Your task to perform on an android device: turn notification dots on Image 0: 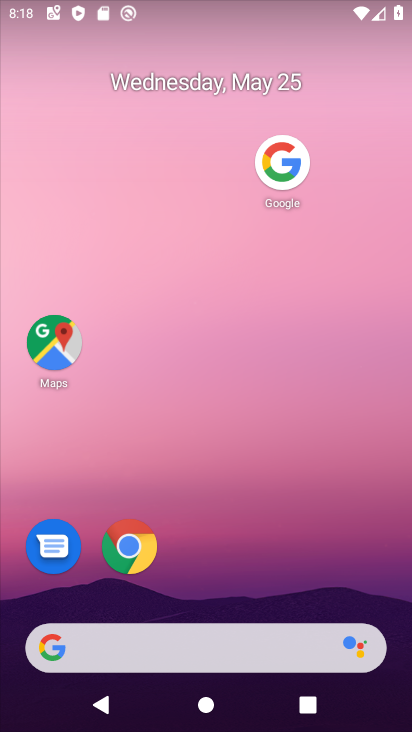
Step 0: drag from (214, 625) to (325, 190)
Your task to perform on an android device: turn notification dots on Image 1: 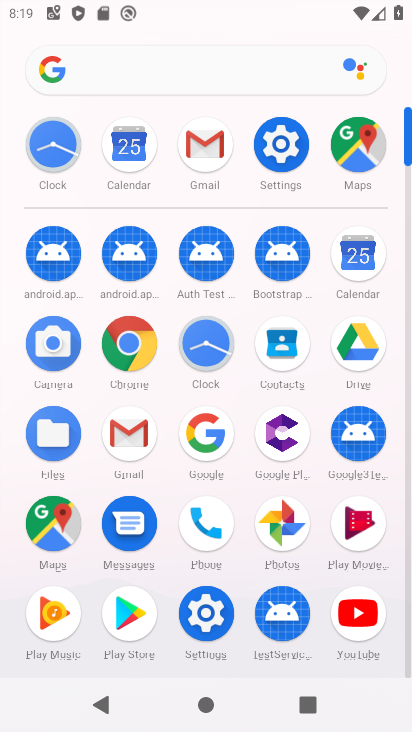
Step 1: click (288, 144)
Your task to perform on an android device: turn notification dots on Image 2: 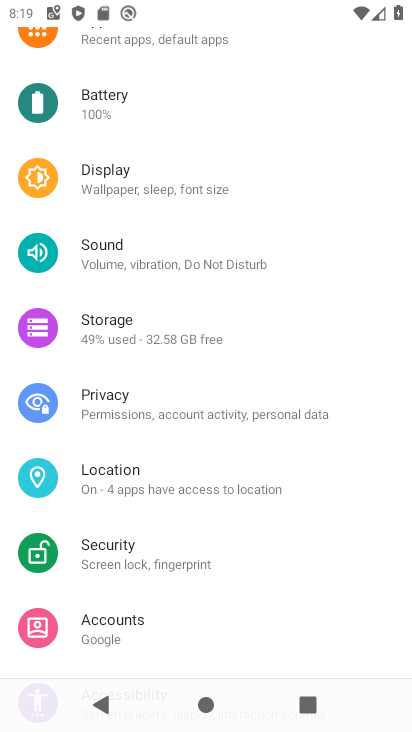
Step 2: drag from (294, 139) to (231, 479)
Your task to perform on an android device: turn notification dots on Image 3: 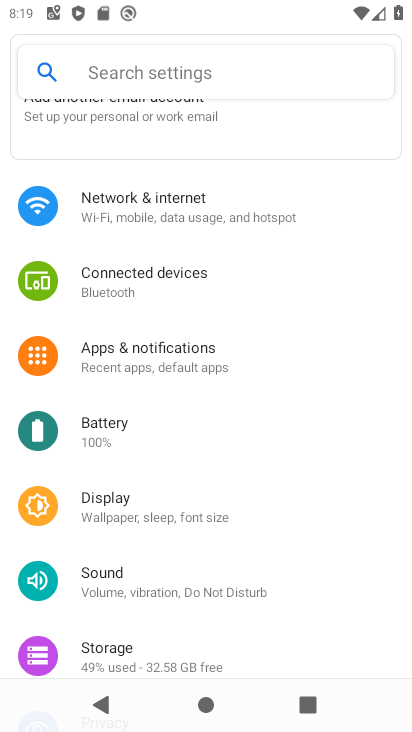
Step 3: click (187, 348)
Your task to perform on an android device: turn notification dots on Image 4: 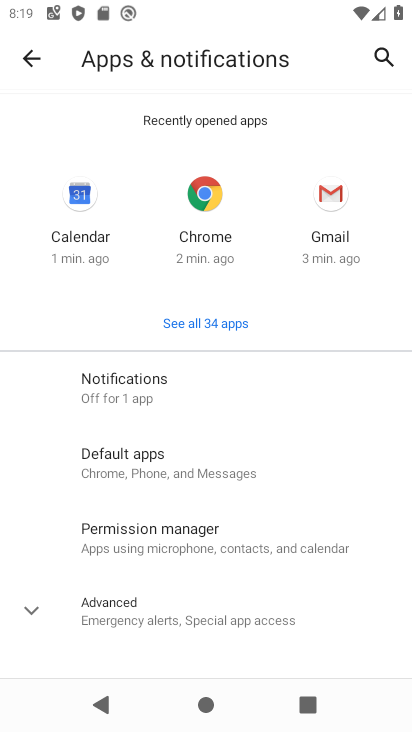
Step 4: click (149, 396)
Your task to perform on an android device: turn notification dots on Image 5: 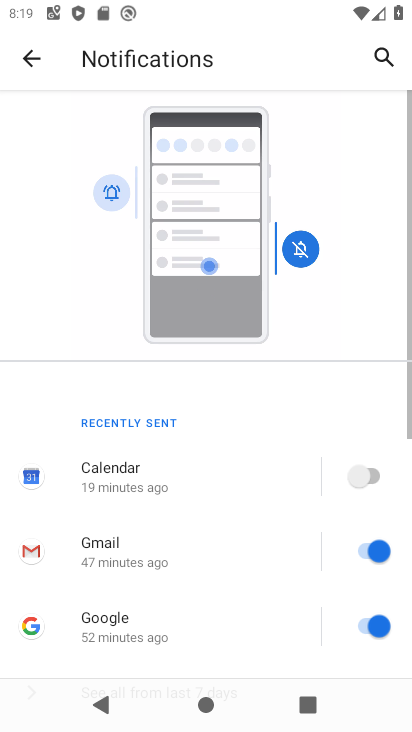
Step 5: drag from (287, 474) to (391, 92)
Your task to perform on an android device: turn notification dots on Image 6: 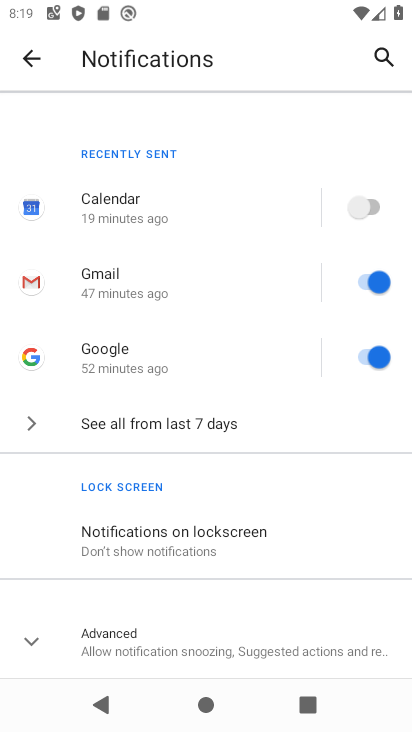
Step 6: click (195, 645)
Your task to perform on an android device: turn notification dots on Image 7: 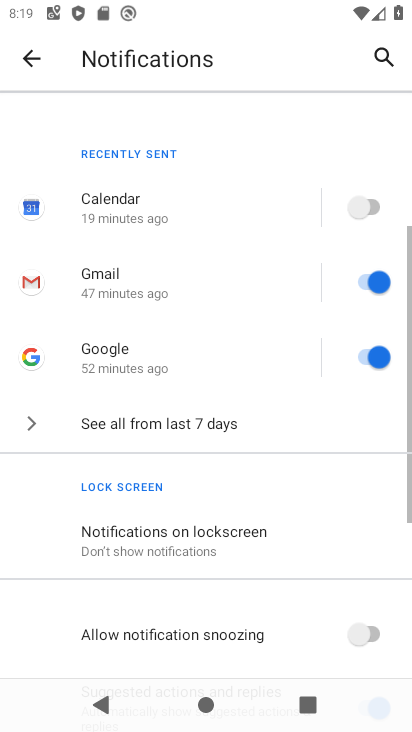
Step 7: drag from (238, 602) to (405, 133)
Your task to perform on an android device: turn notification dots on Image 8: 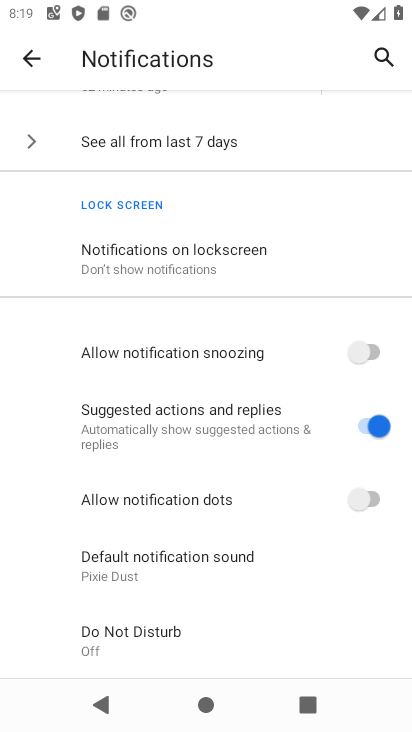
Step 8: click (374, 495)
Your task to perform on an android device: turn notification dots on Image 9: 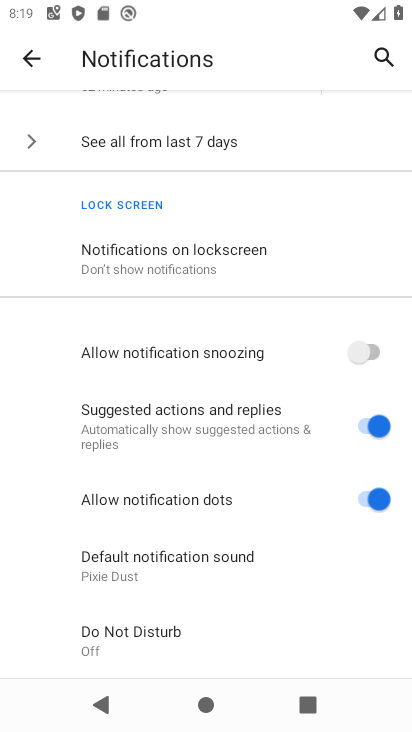
Step 9: task complete